Your task to perform on an android device: Open battery settings Image 0: 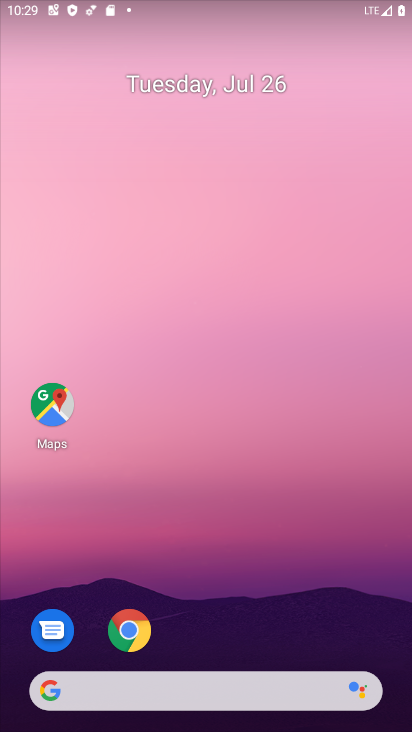
Step 0: drag from (208, 573) to (214, 16)
Your task to perform on an android device: Open battery settings Image 1: 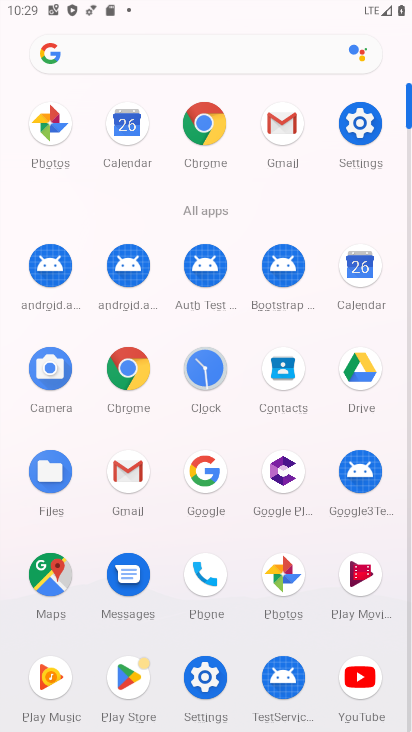
Step 1: click (358, 133)
Your task to perform on an android device: Open battery settings Image 2: 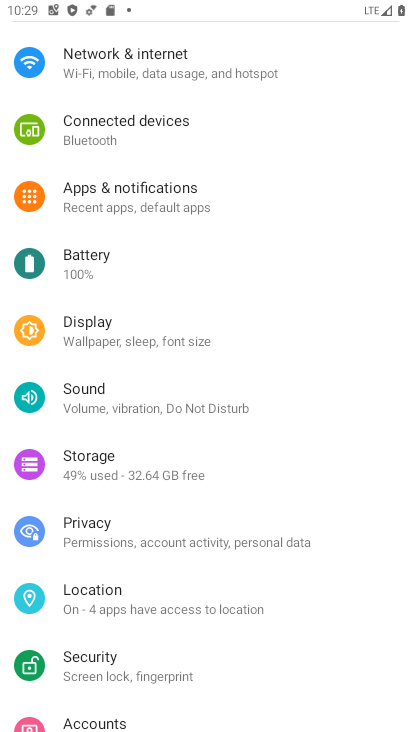
Step 2: click (90, 266)
Your task to perform on an android device: Open battery settings Image 3: 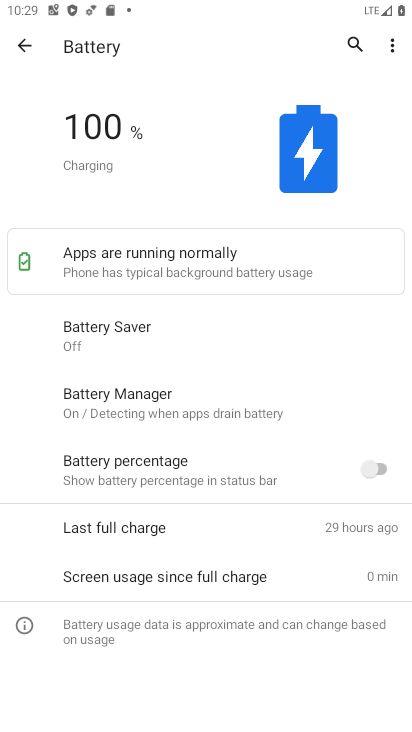
Step 3: task complete